Your task to perform on an android device: Open the web browser Image 0: 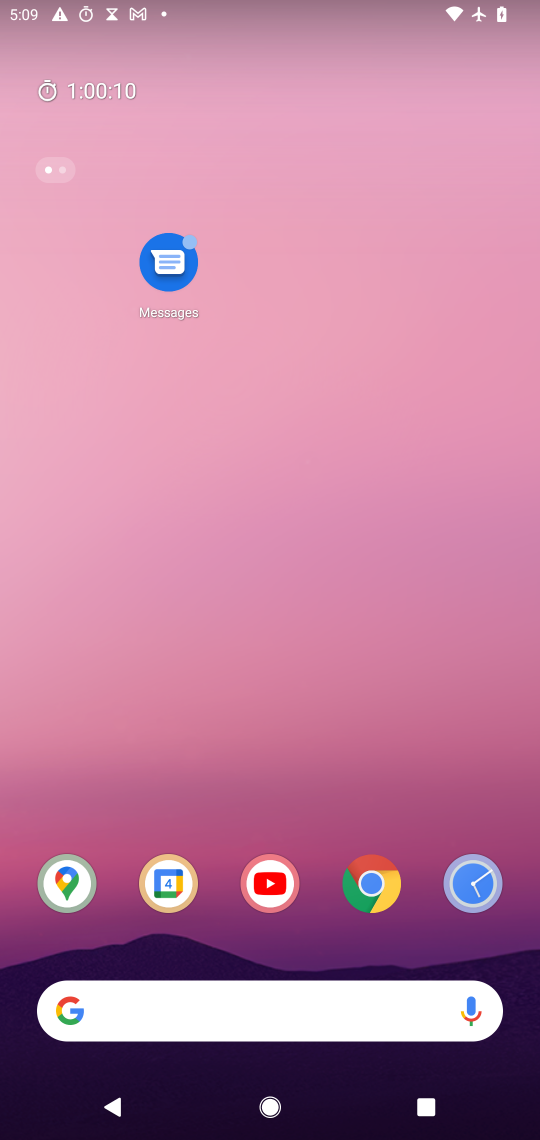
Step 0: drag from (308, 969) to (313, 56)
Your task to perform on an android device: Open the web browser Image 1: 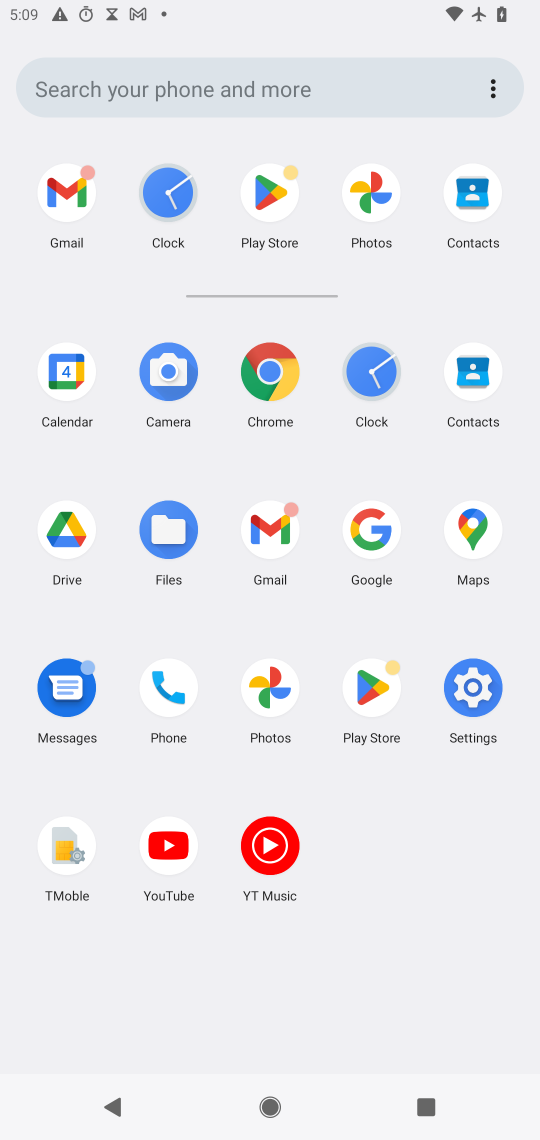
Step 1: click (265, 371)
Your task to perform on an android device: Open the web browser Image 2: 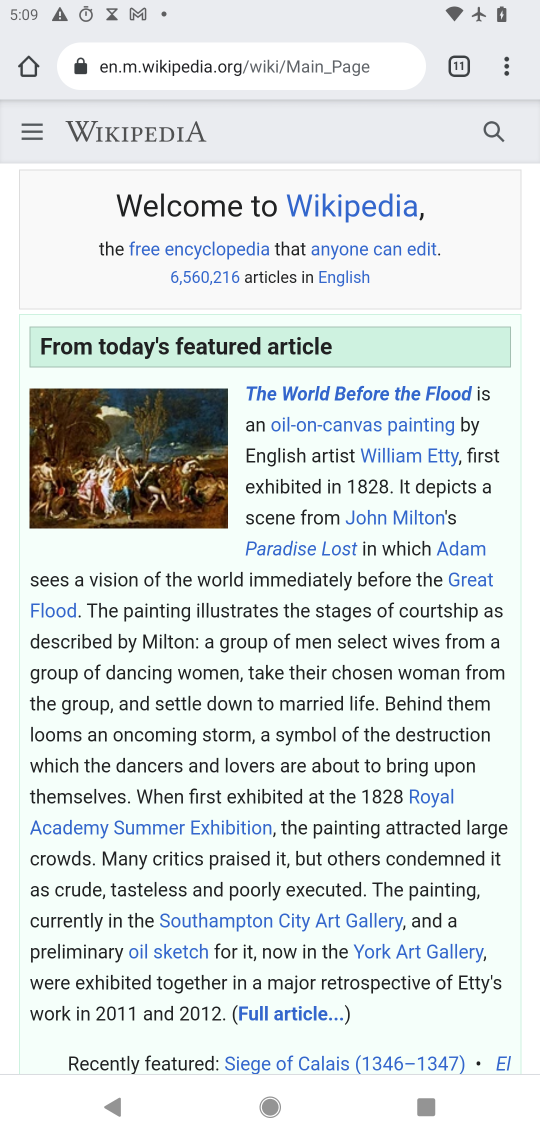
Step 2: task complete